Your task to perform on an android device: Check the news Image 0: 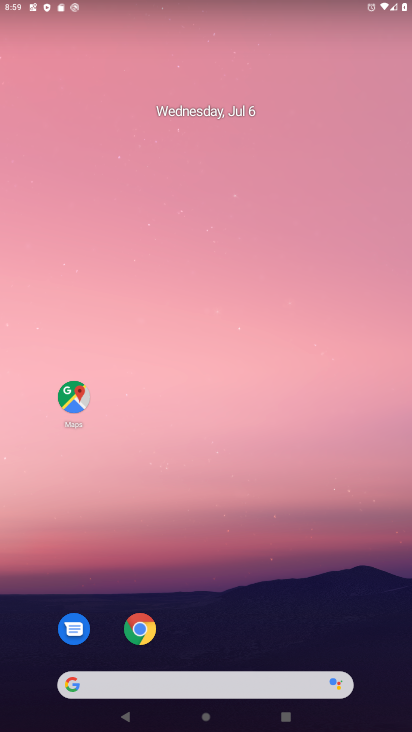
Step 0: click (180, 679)
Your task to perform on an android device: Check the news Image 1: 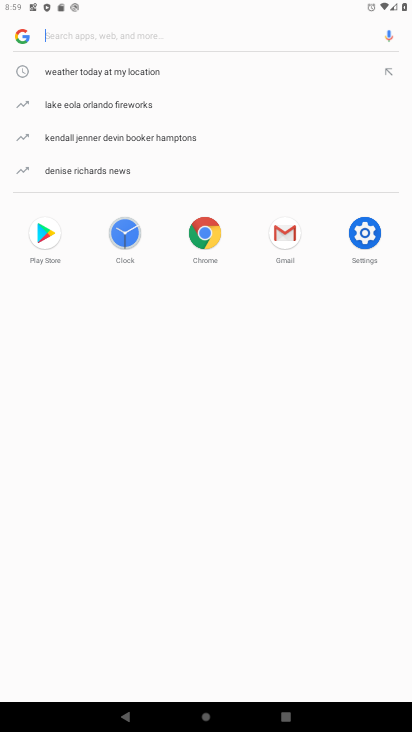
Step 1: type "news"
Your task to perform on an android device: Check the news Image 2: 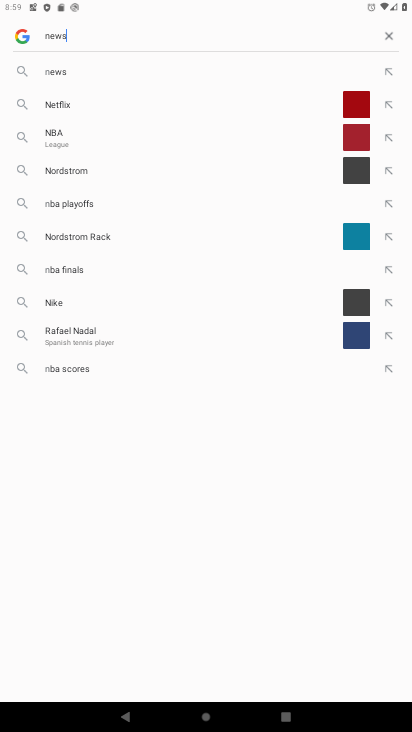
Step 2: type ""
Your task to perform on an android device: Check the news Image 3: 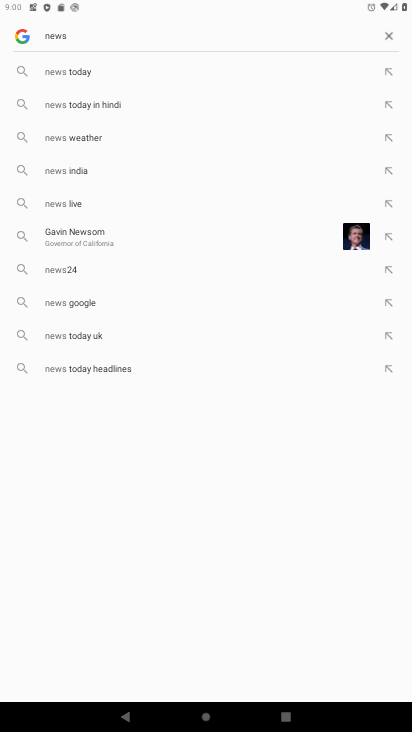
Step 3: click (54, 68)
Your task to perform on an android device: Check the news Image 4: 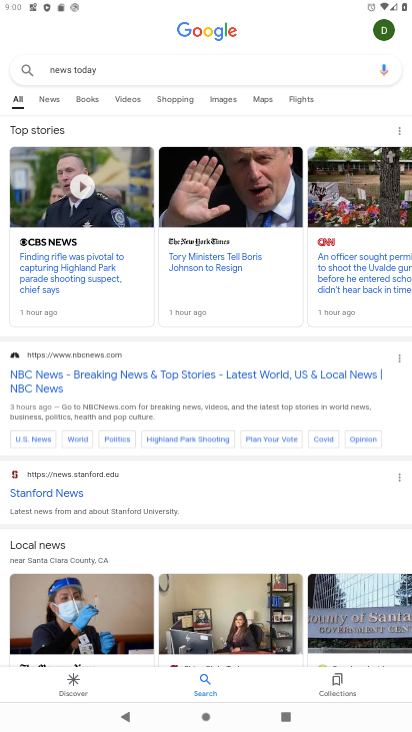
Step 4: task complete